Your task to perform on an android device: stop showing notifications on the lock screen Image 0: 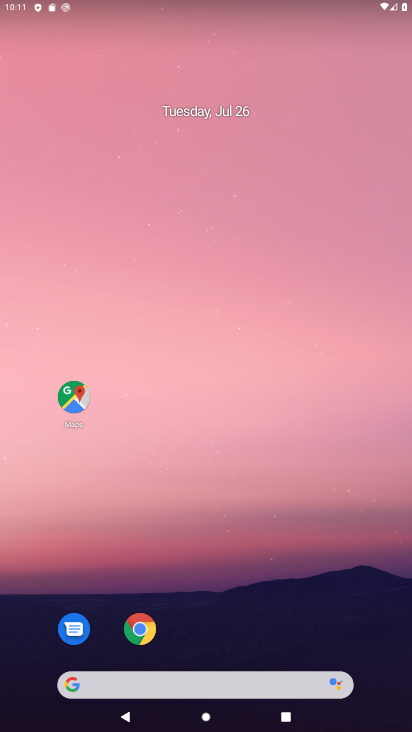
Step 0: drag from (269, 636) to (200, 93)
Your task to perform on an android device: stop showing notifications on the lock screen Image 1: 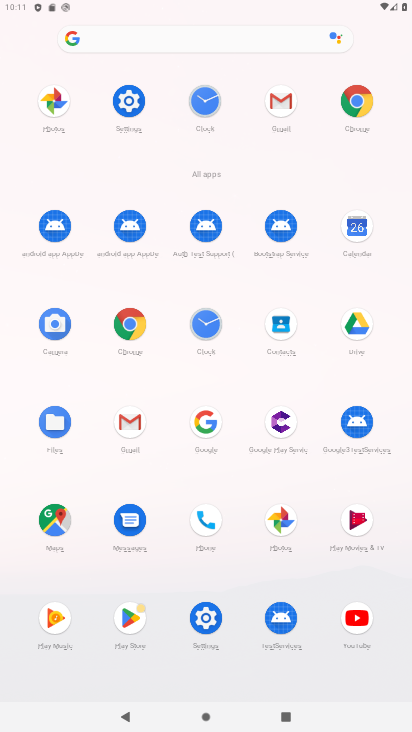
Step 1: click (129, 119)
Your task to perform on an android device: stop showing notifications on the lock screen Image 2: 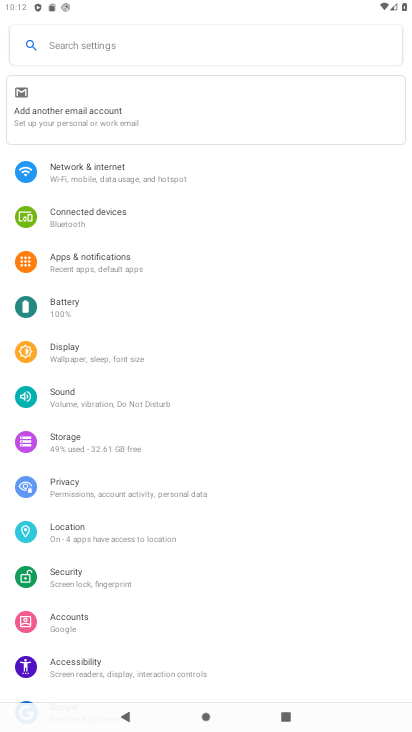
Step 2: task complete